Your task to perform on an android device: Search for Mexican restaurants on Maps Image 0: 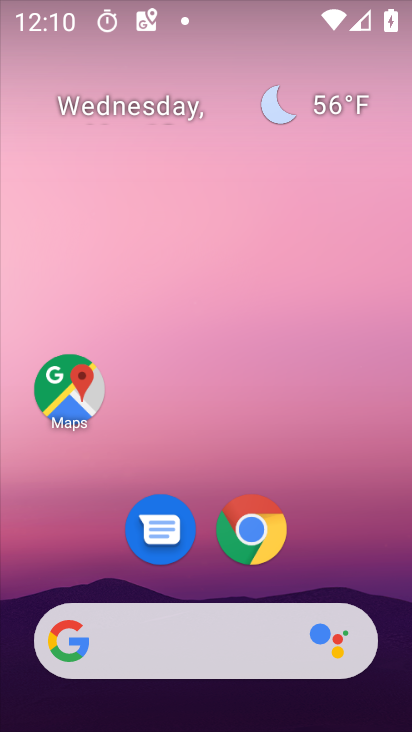
Step 0: click (58, 370)
Your task to perform on an android device: Search for Mexican restaurants on Maps Image 1: 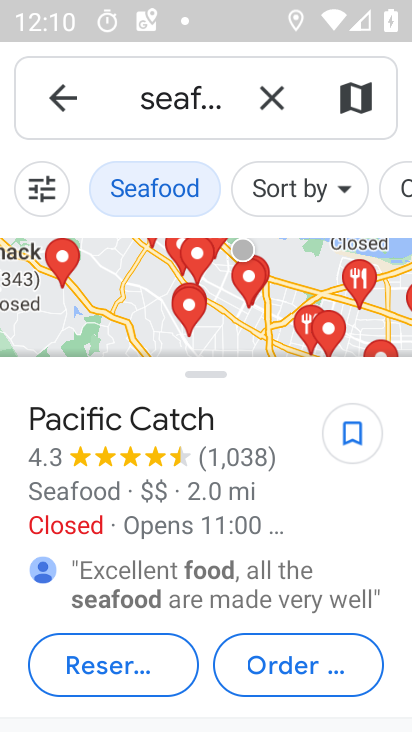
Step 1: click (268, 98)
Your task to perform on an android device: Search for Mexican restaurants on Maps Image 2: 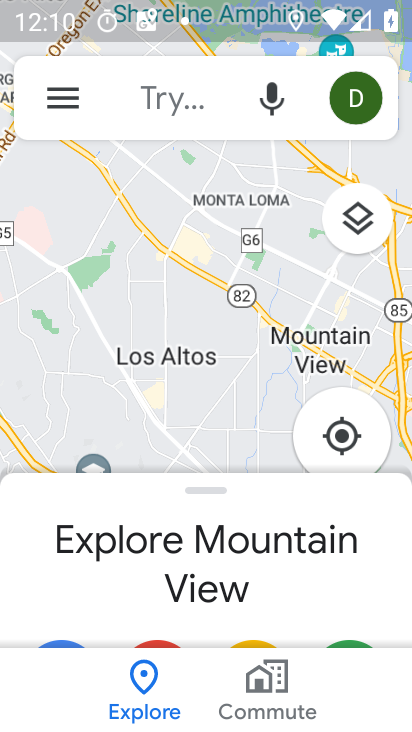
Step 2: click (136, 106)
Your task to perform on an android device: Search for Mexican restaurants on Maps Image 3: 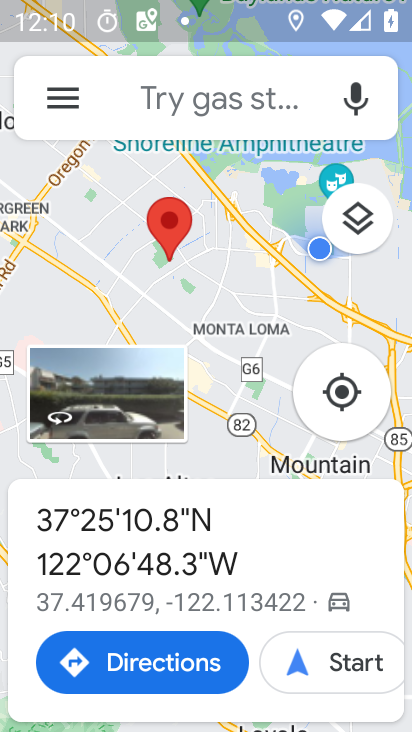
Step 3: click (196, 86)
Your task to perform on an android device: Search for Mexican restaurants on Maps Image 4: 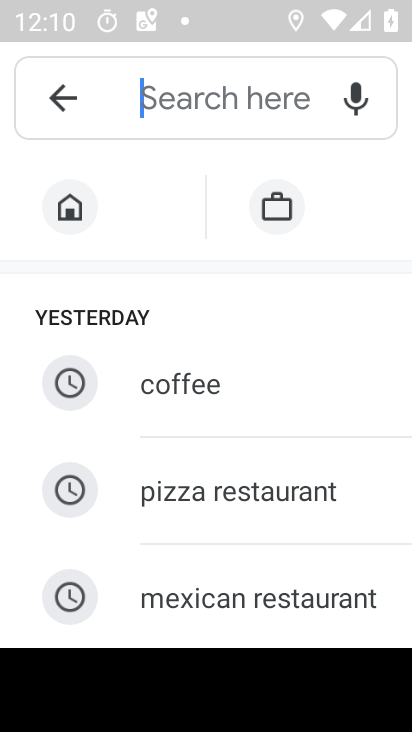
Step 4: click (208, 617)
Your task to perform on an android device: Search for Mexican restaurants on Maps Image 5: 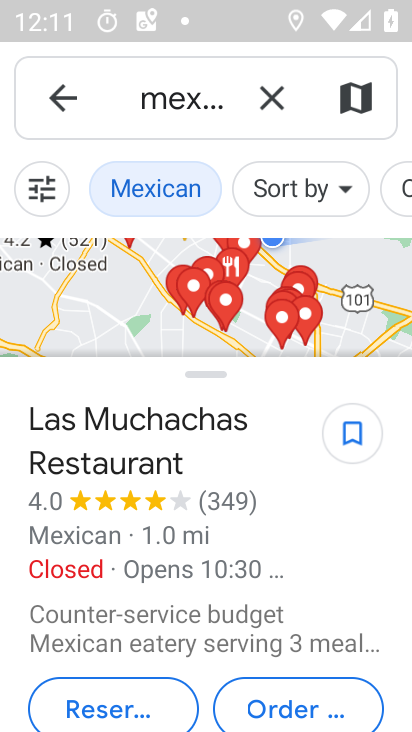
Step 5: task complete